Your task to perform on an android device: stop showing notifications on the lock screen Image 0: 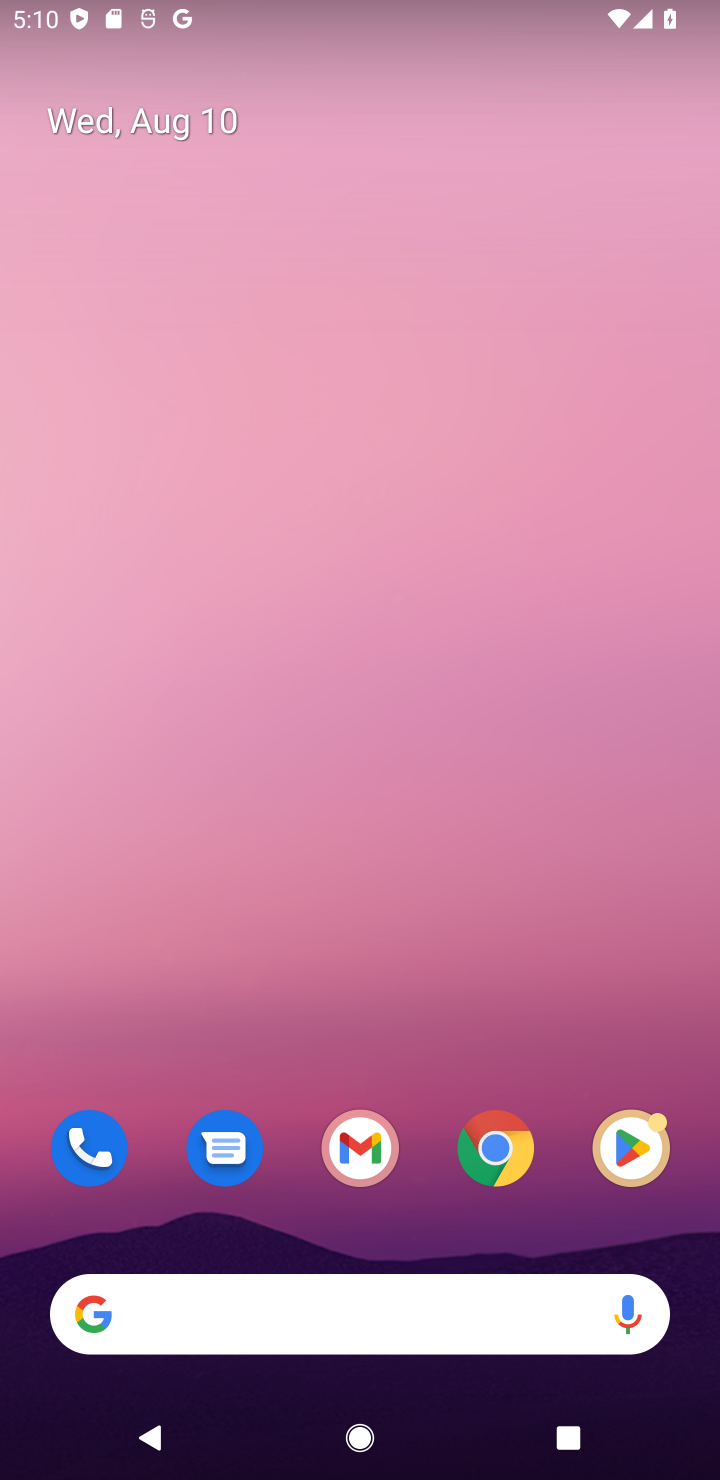
Step 0: drag from (424, 1208) to (423, 225)
Your task to perform on an android device: stop showing notifications on the lock screen Image 1: 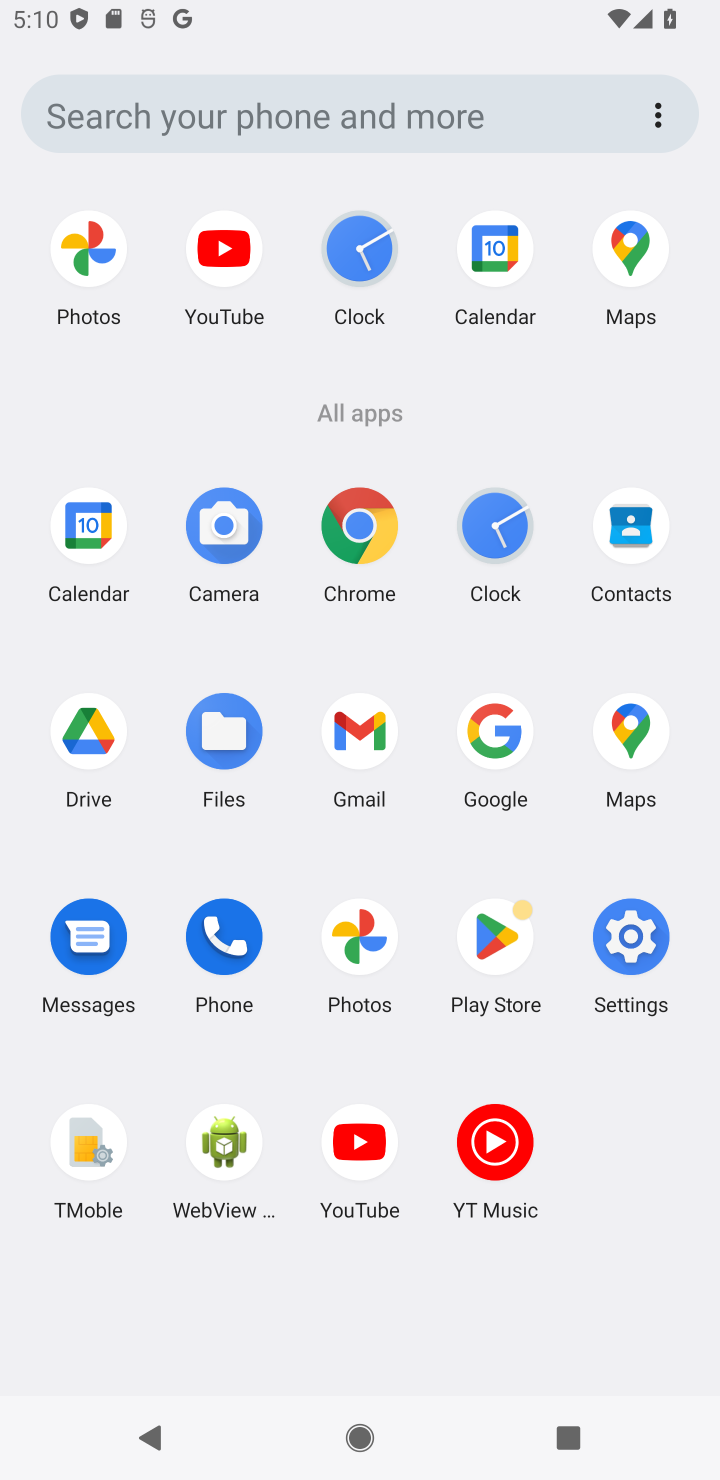
Step 1: click (624, 930)
Your task to perform on an android device: stop showing notifications on the lock screen Image 2: 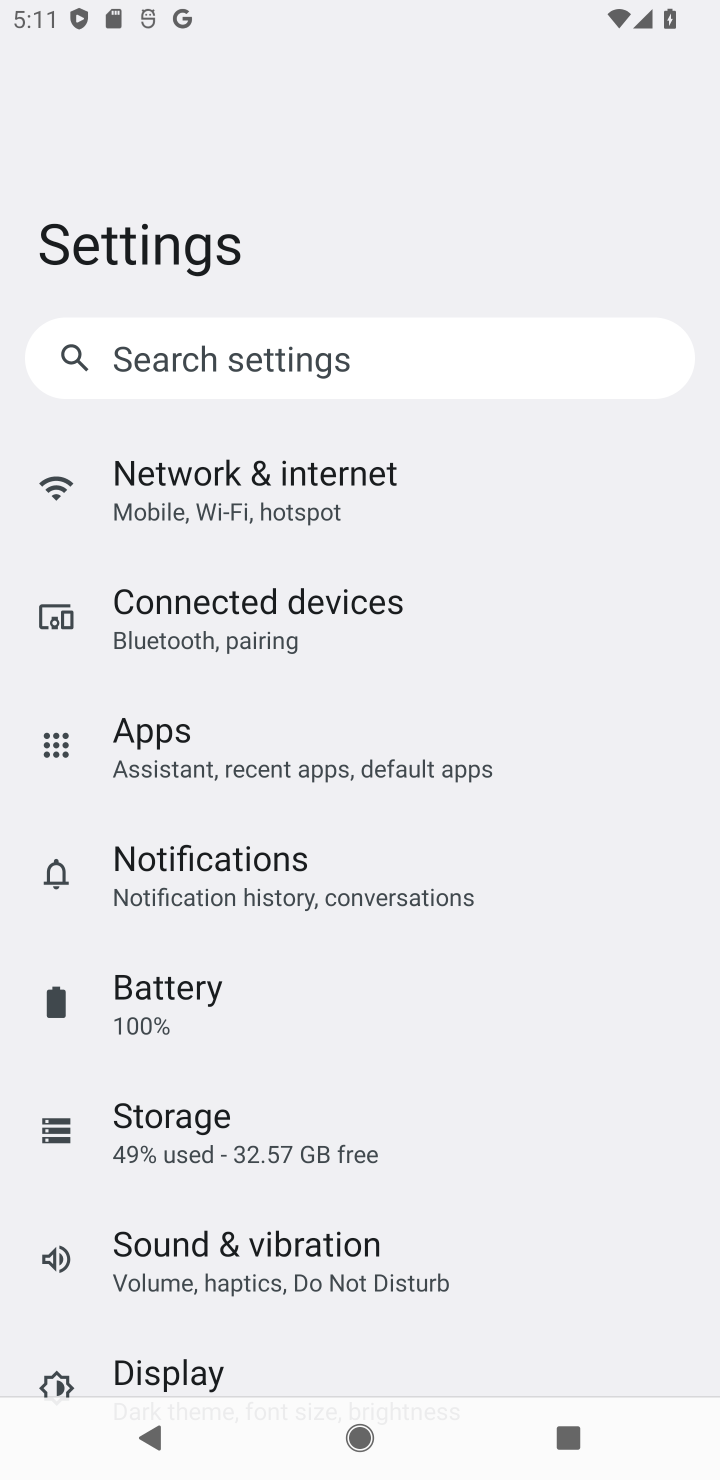
Step 2: click (186, 859)
Your task to perform on an android device: stop showing notifications on the lock screen Image 3: 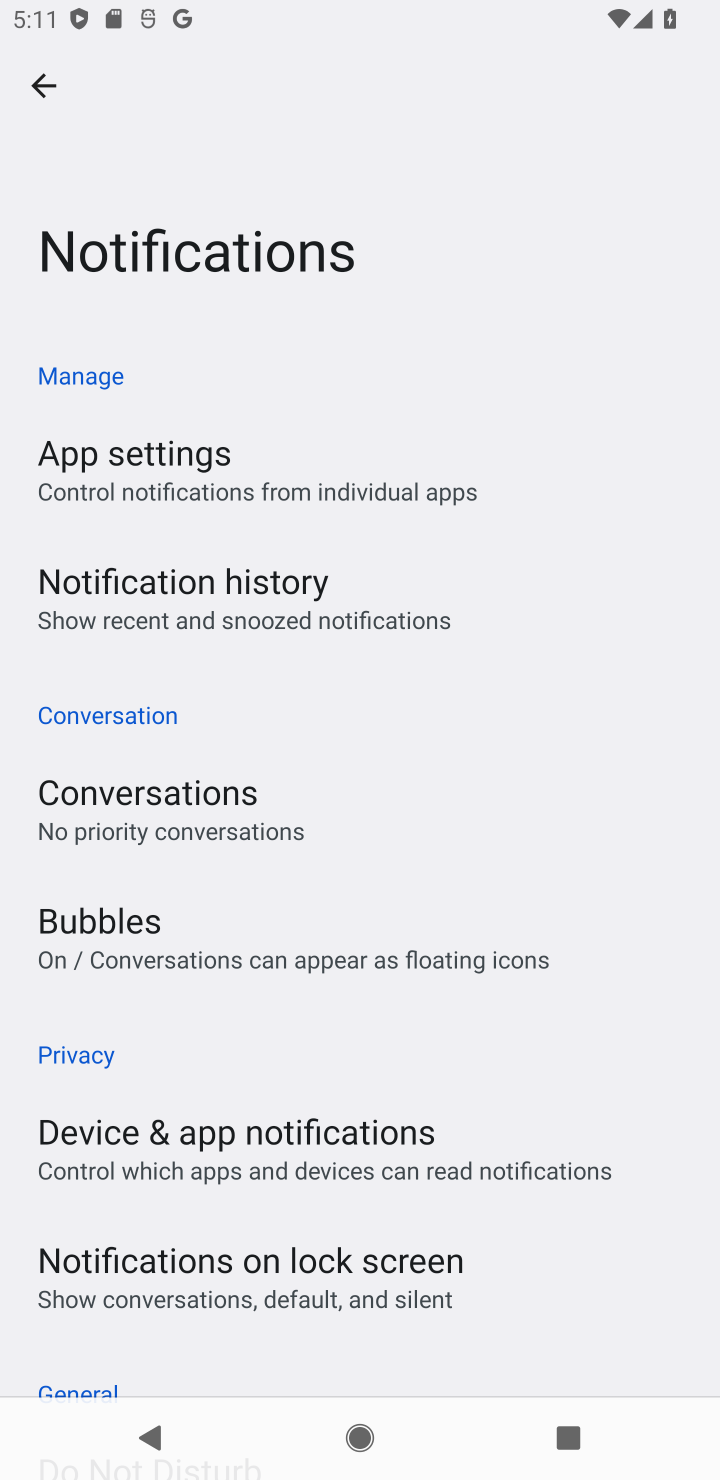
Step 3: click (202, 1268)
Your task to perform on an android device: stop showing notifications on the lock screen Image 4: 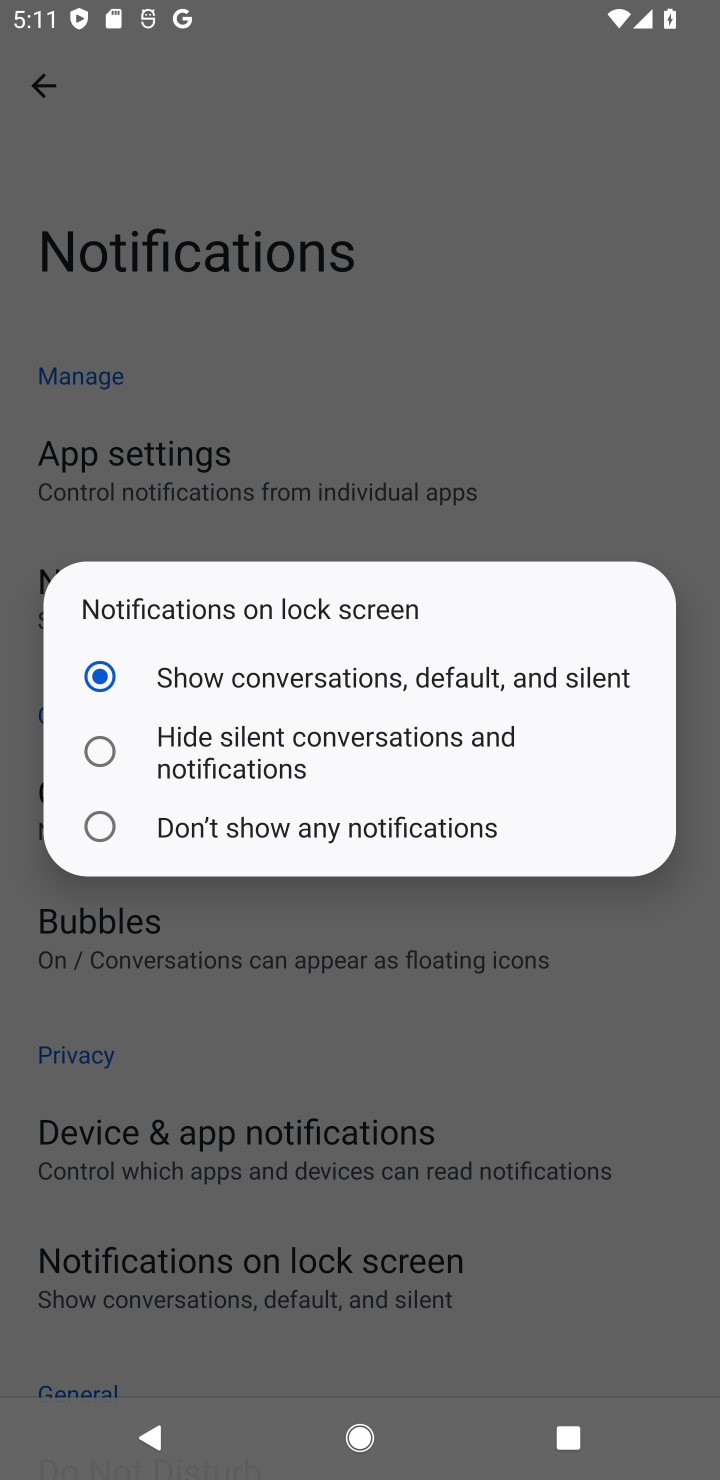
Step 4: click (258, 679)
Your task to perform on an android device: stop showing notifications on the lock screen Image 5: 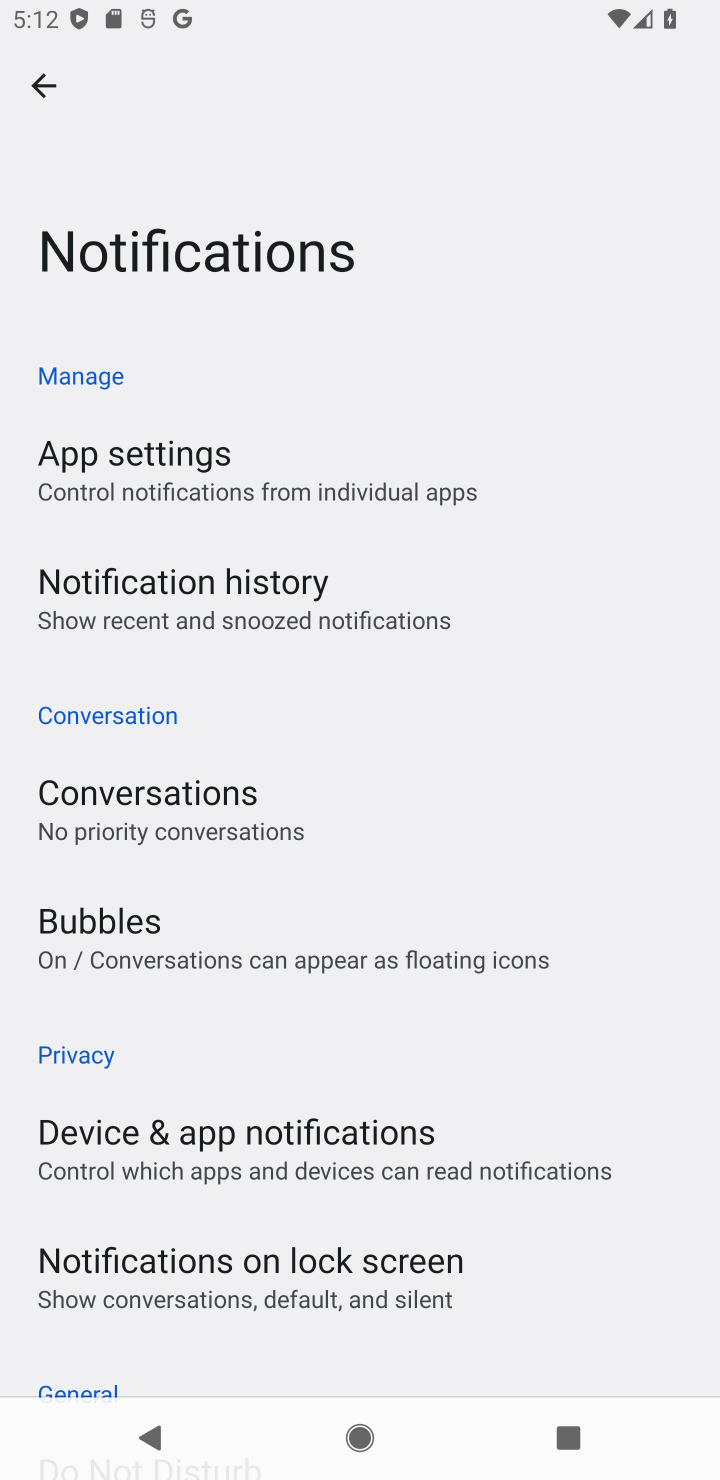
Step 5: task complete